Your task to perform on an android device: Open location settings Image 0: 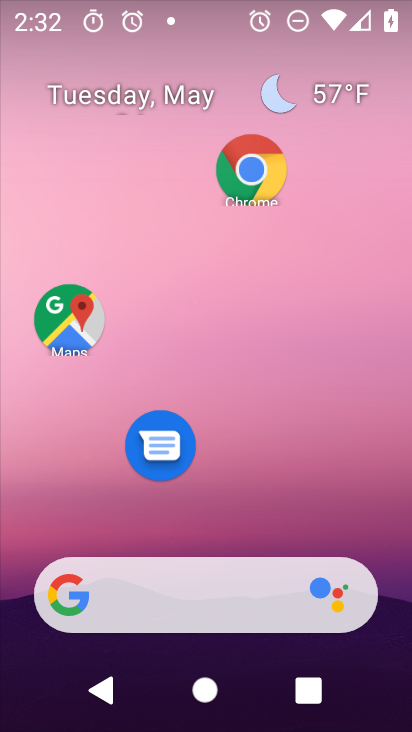
Step 0: drag from (235, 717) to (224, 95)
Your task to perform on an android device: Open location settings Image 1: 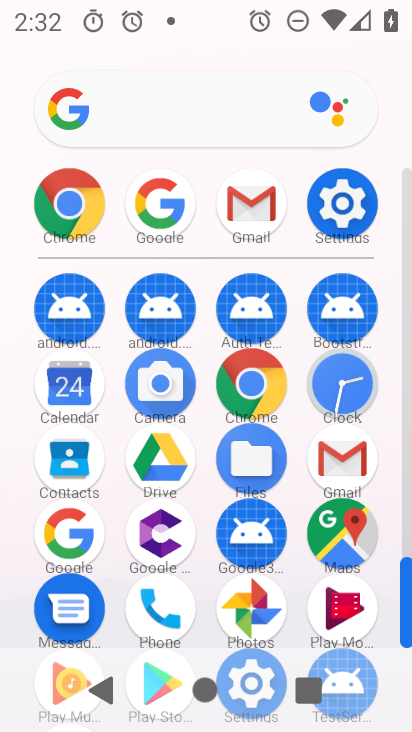
Step 1: click (337, 204)
Your task to perform on an android device: Open location settings Image 2: 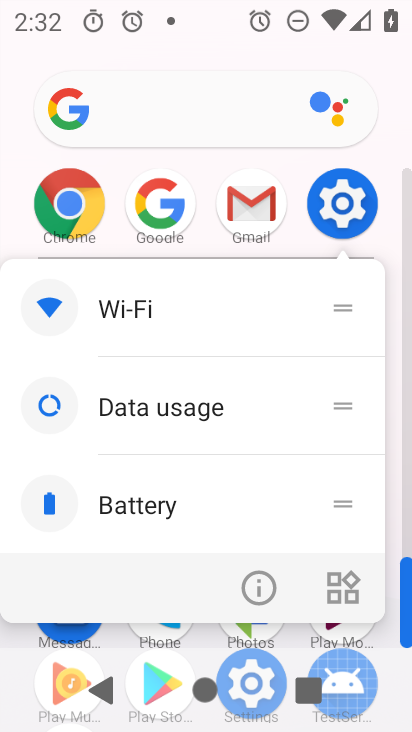
Step 2: click (338, 194)
Your task to perform on an android device: Open location settings Image 3: 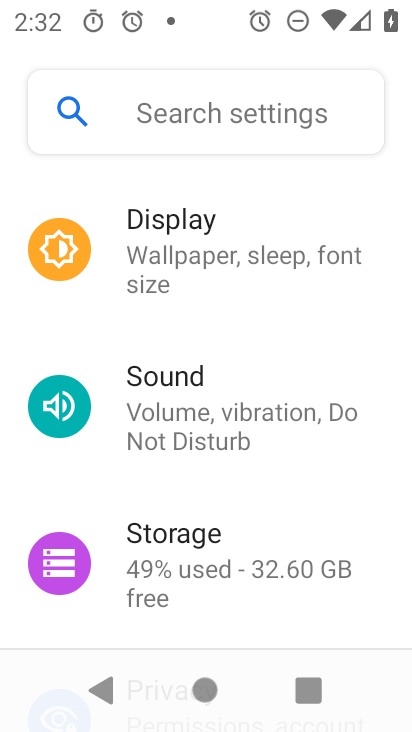
Step 3: drag from (323, 620) to (323, 157)
Your task to perform on an android device: Open location settings Image 4: 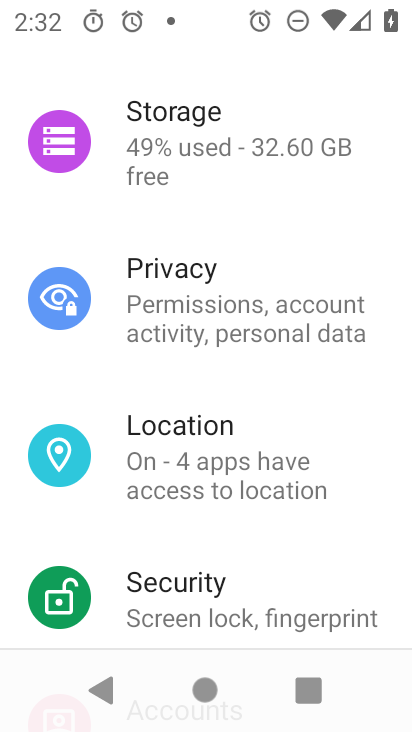
Step 4: click (202, 440)
Your task to perform on an android device: Open location settings Image 5: 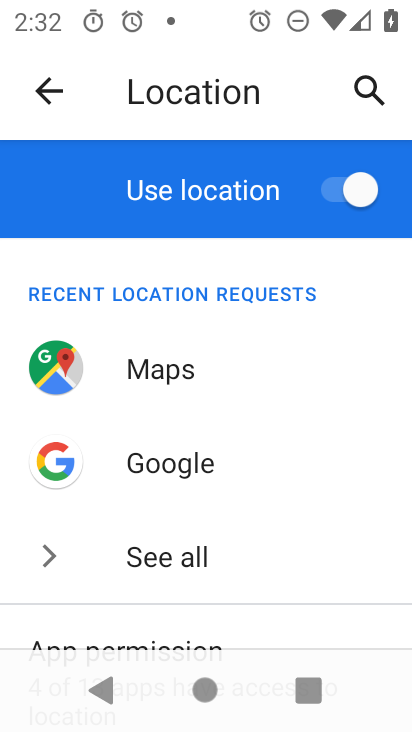
Step 5: task complete